Your task to perform on an android device: change notification settings in the gmail app Image 0: 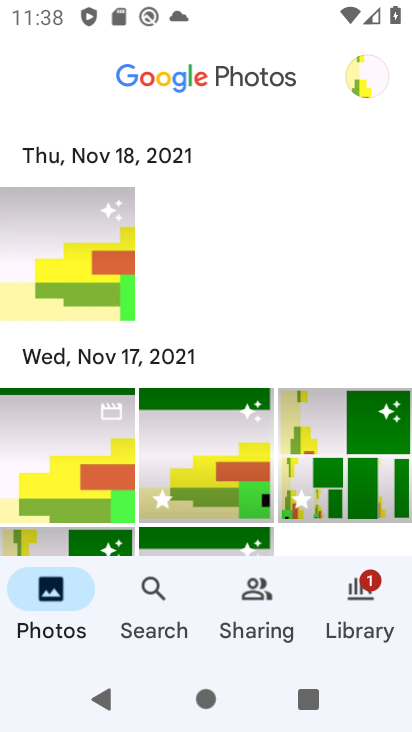
Step 0: press home button
Your task to perform on an android device: change notification settings in the gmail app Image 1: 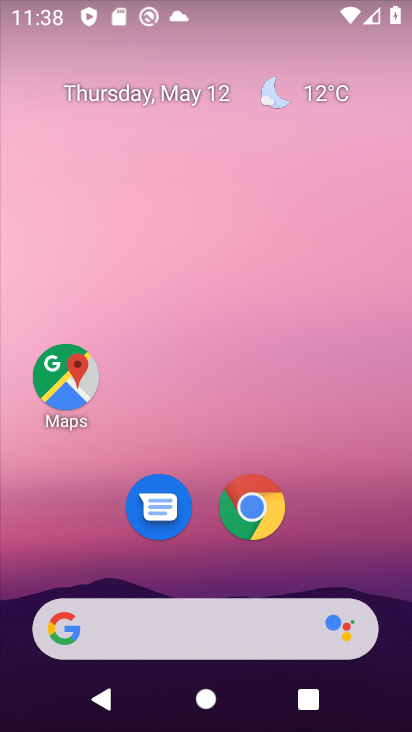
Step 1: drag from (191, 560) to (238, 140)
Your task to perform on an android device: change notification settings in the gmail app Image 2: 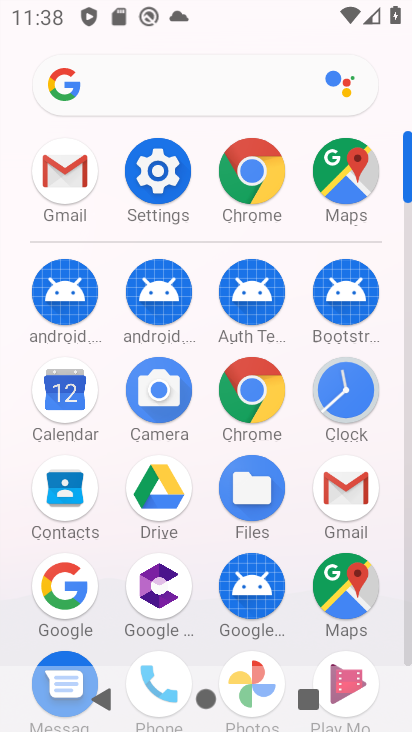
Step 2: click (353, 496)
Your task to perform on an android device: change notification settings in the gmail app Image 3: 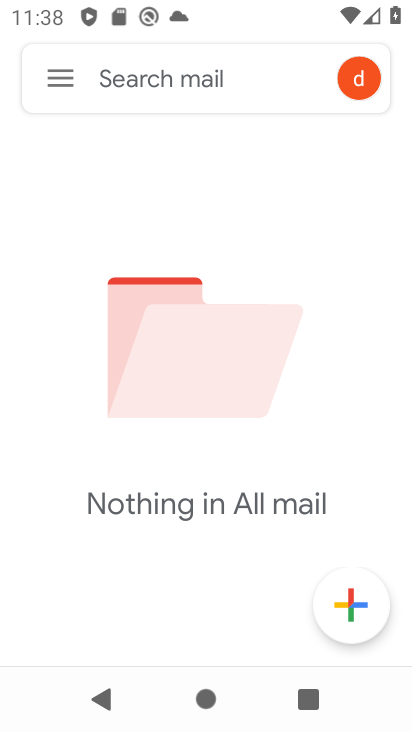
Step 3: click (50, 77)
Your task to perform on an android device: change notification settings in the gmail app Image 4: 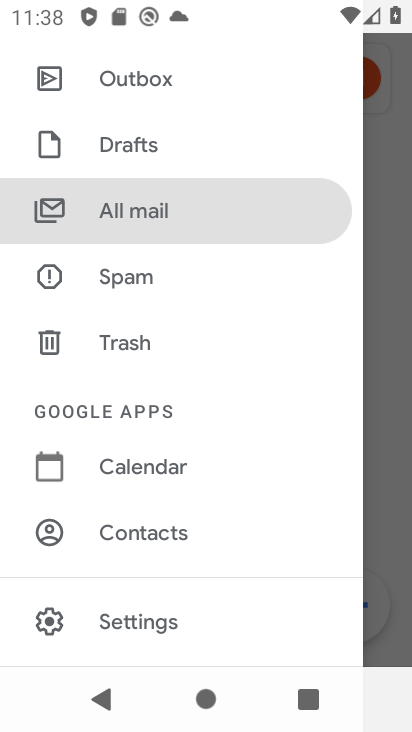
Step 4: click (126, 620)
Your task to perform on an android device: change notification settings in the gmail app Image 5: 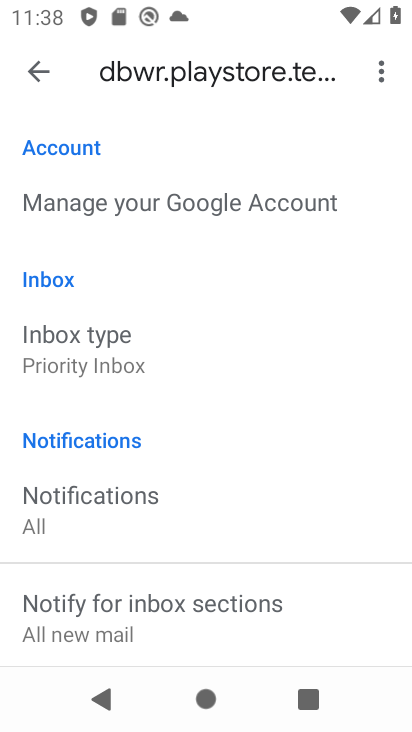
Step 5: click (40, 65)
Your task to perform on an android device: change notification settings in the gmail app Image 6: 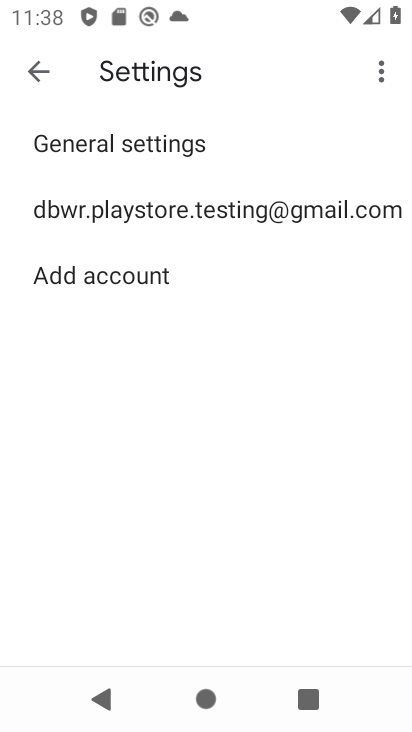
Step 6: click (116, 145)
Your task to perform on an android device: change notification settings in the gmail app Image 7: 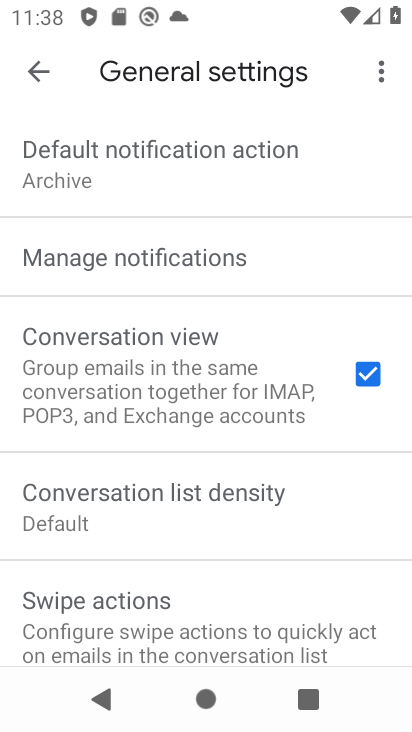
Step 7: click (132, 264)
Your task to perform on an android device: change notification settings in the gmail app Image 8: 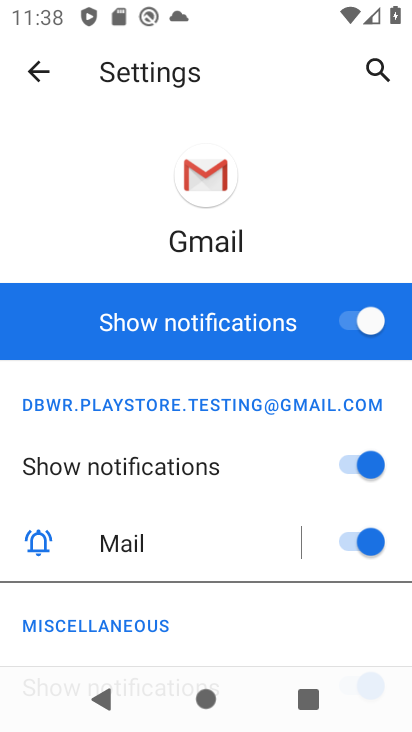
Step 8: click (297, 330)
Your task to perform on an android device: change notification settings in the gmail app Image 9: 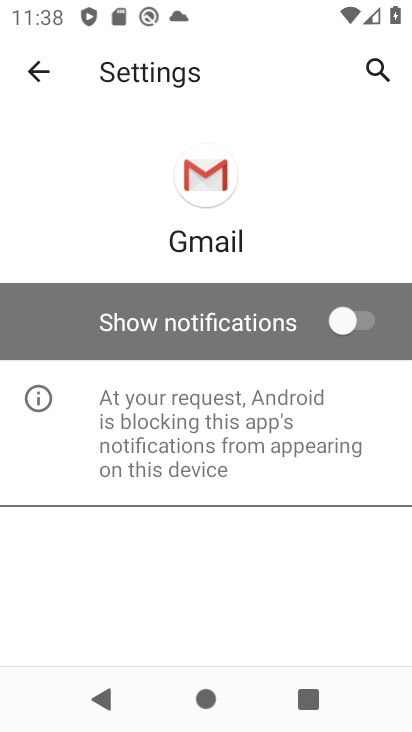
Step 9: task complete